Your task to perform on an android device: Open the map Image 0: 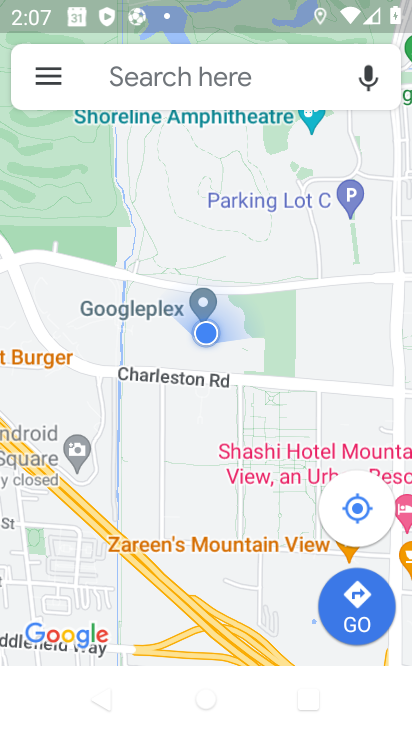
Step 0: task complete